Your task to perform on an android device: allow notifications from all sites in the chrome app Image 0: 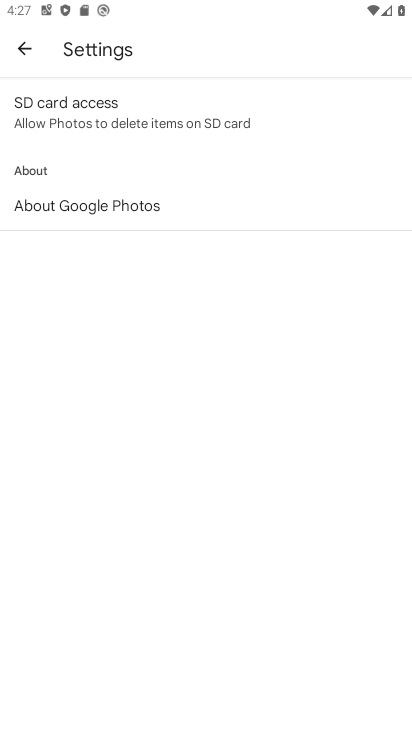
Step 0: press home button
Your task to perform on an android device: allow notifications from all sites in the chrome app Image 1: 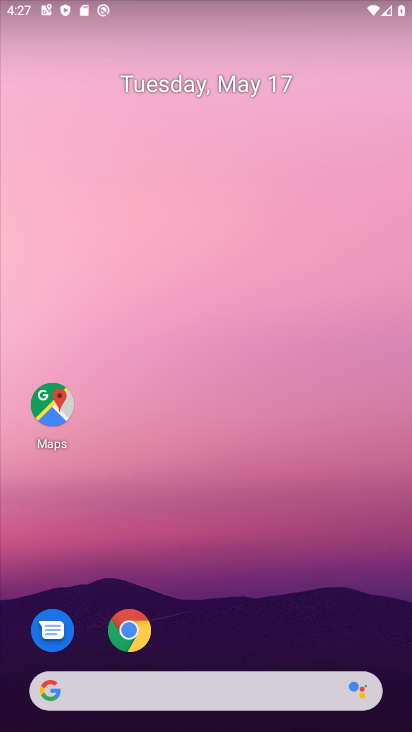
Step 1: click (129, 636)
Your task to perform on an android device: allow notifications from all sites in the chrome app Image 2: 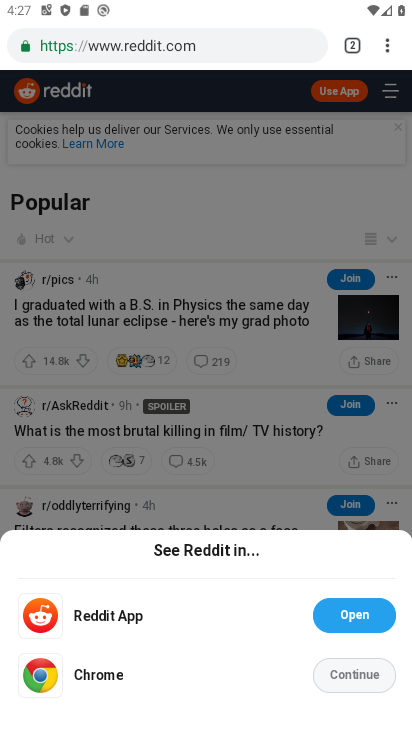
Step 2: click (386, 48)
Your task to perform on an android device: allow notifications from all sites in the chrome app Image 3: 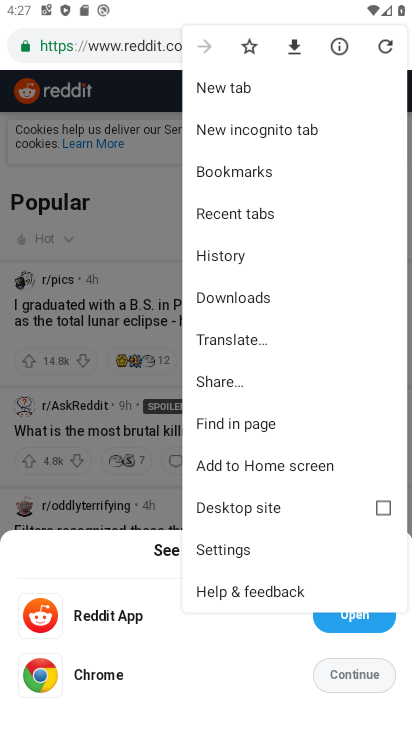
Step 3: click (224, 548)
Your task to perform on an android device: allow notifications from all sites in the chrome app Image 4: 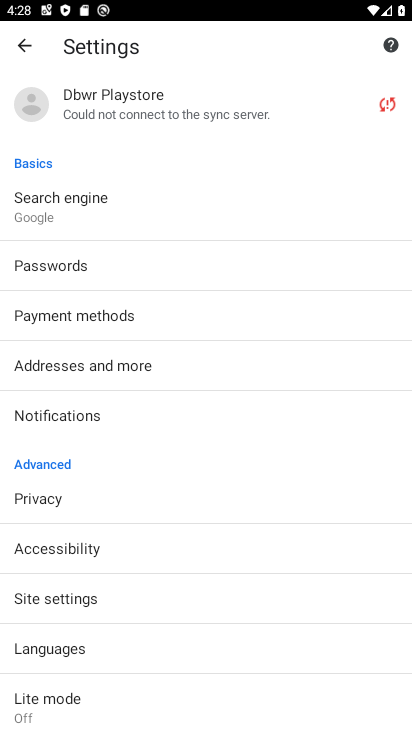
Step 4: click (70, 596)
Your task to perform on an android device: allow notifications from all sites in the chrome app Image 5: 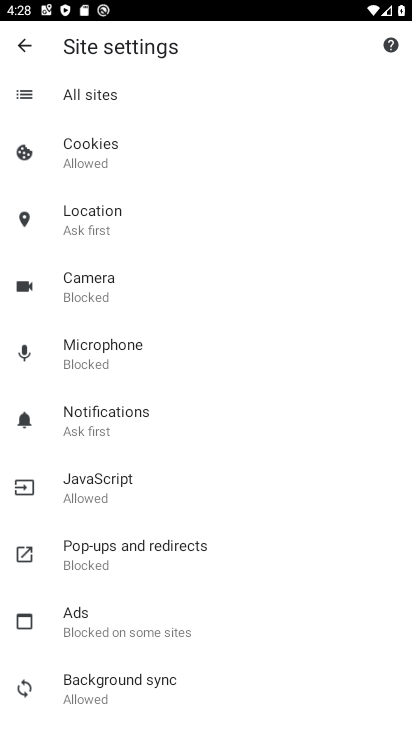
Step 5: click (132, 412)
Your task to perform on an android device: allow notifications from all sites in the chrome app Image 6: 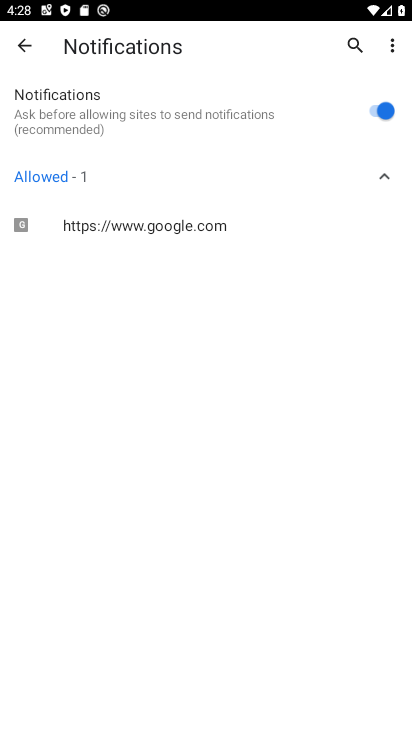
Step 6: task complete